Your task to perform on an android device: Search for the best fantasy books on Goodreads. Image 0: 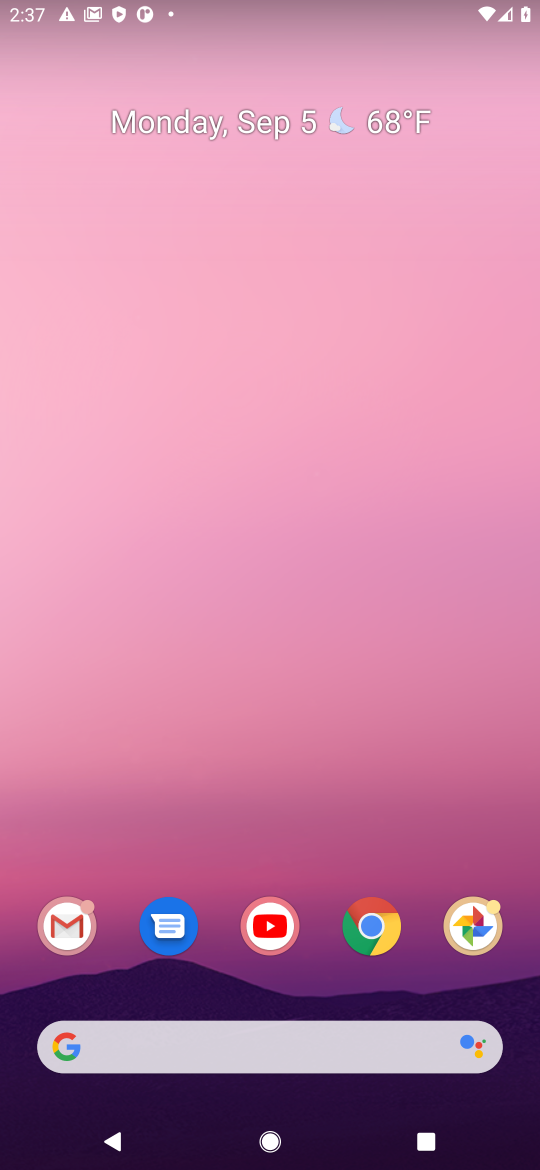
Step 0: click (348, 928)
Your task to perform on an android device: Search for the best fantasy books on Goodreads. Image 1: 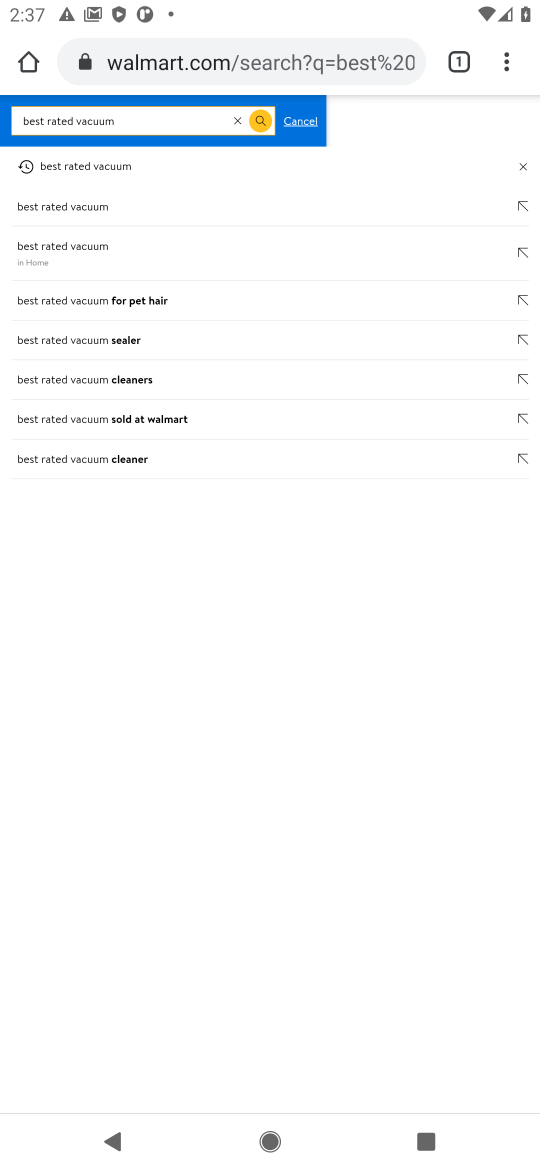
Step 1: click (183, 57)
Your task to perform on an android device: Search for the best fantasy books on Goodreads. Image 2: 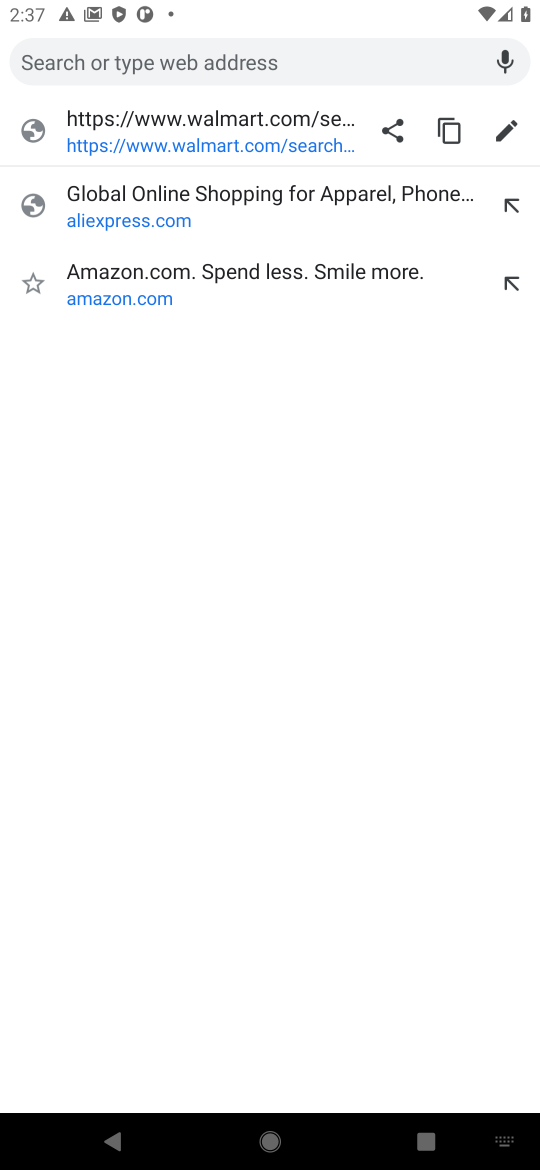
Step 2: type "goodreads"
Your task to perform on an android device: Search for the best fantasy books on Goodreads. Image 3: 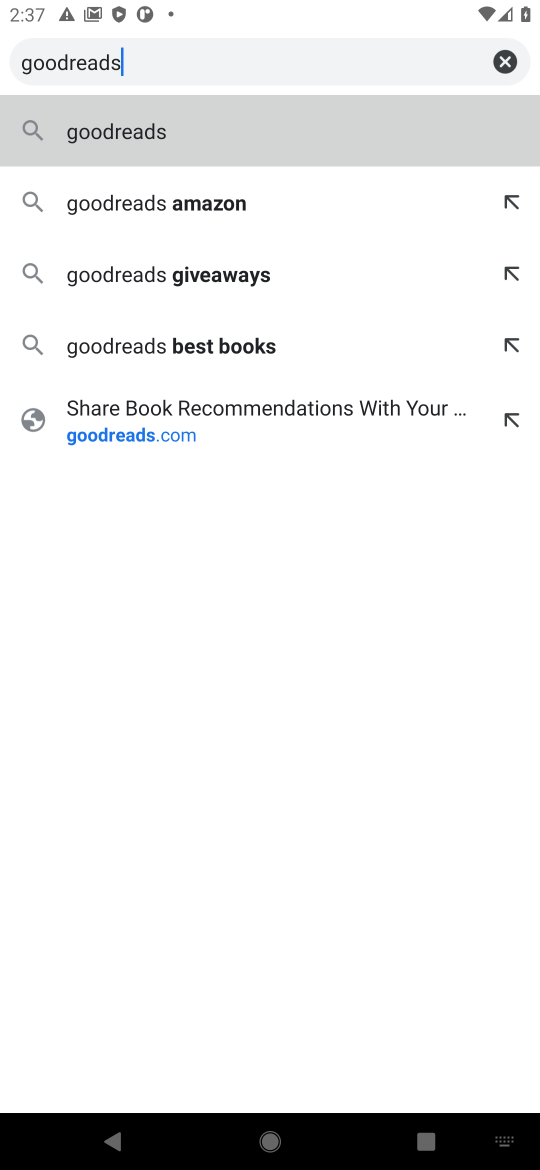
Step 3: click (113, 141)
Your task to perform on an android device: Search for the best fantasy books on Goodreads. Image 4: 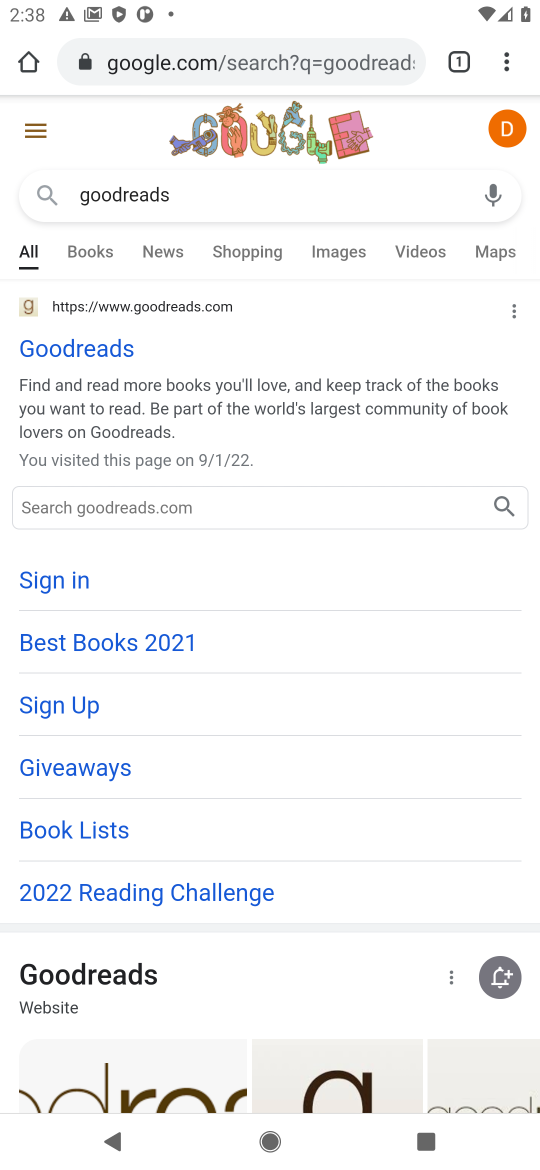
Step 4: click (60, 356)
Your task to perform on an android device: Search for the best fantasy books on Goodreads. Image 5: 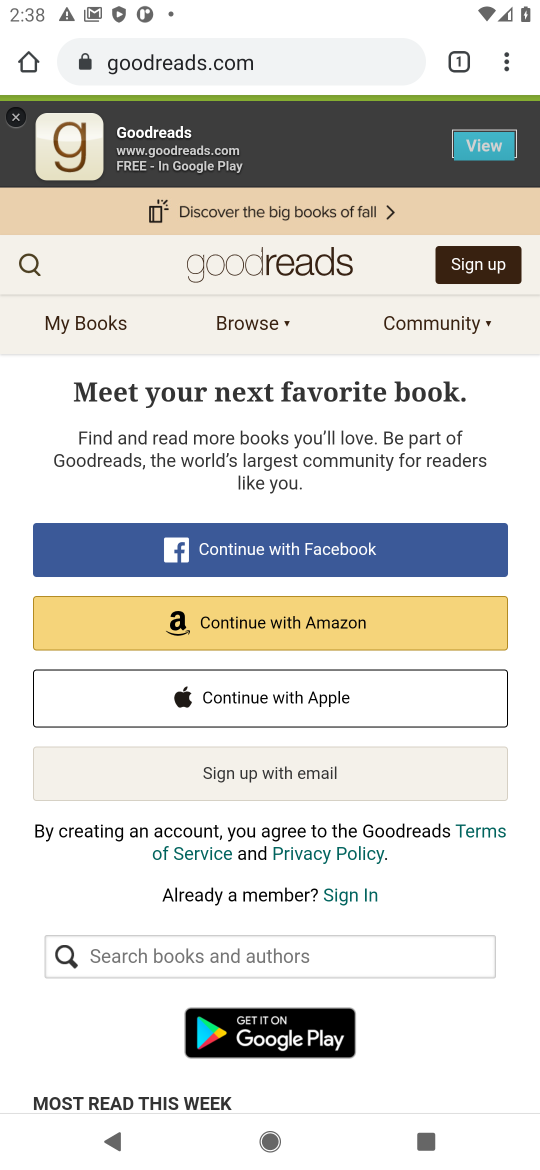
Step 5: task complete